Your task to perform on an android device: Go to privacy settings Image 0: 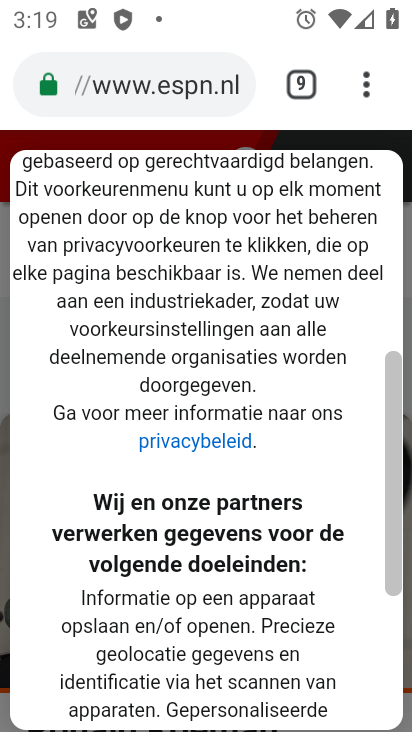
Step 0: press home button
Your task to perform on an android device: Go to privacy settings Image 1: 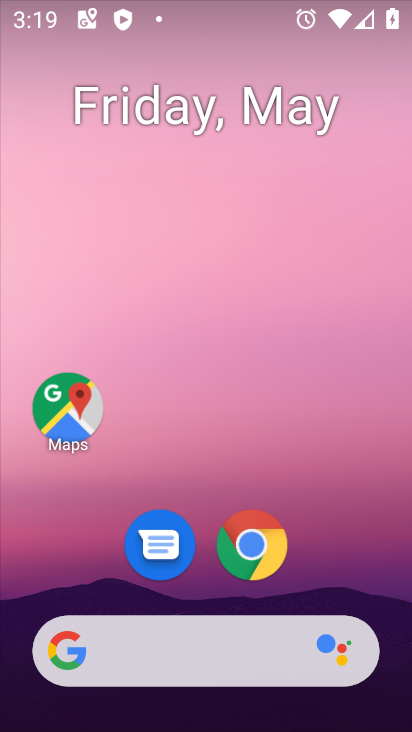
Step 1: click (345, 20)
Your task to perform on an android device: Go to privacy settings Image 2: 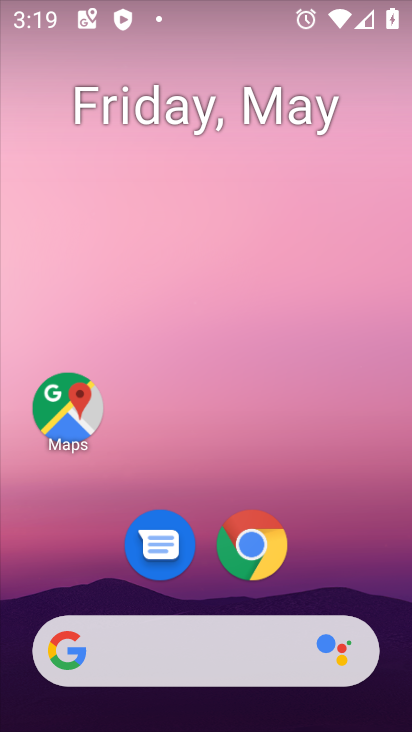
Step 2: drag from (318, 586) to (293, 248)
Your task to perform on an android device: Go to privacy settings Image 3: 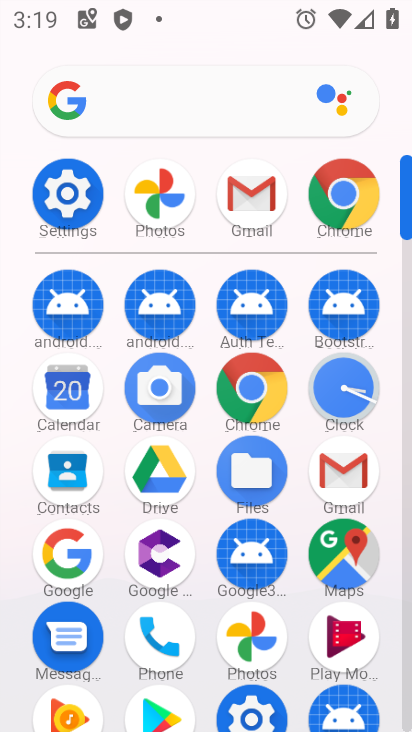
Step 3: click (73, 180)
Your task to perform on an android device: Go to privacy settings Image 4: 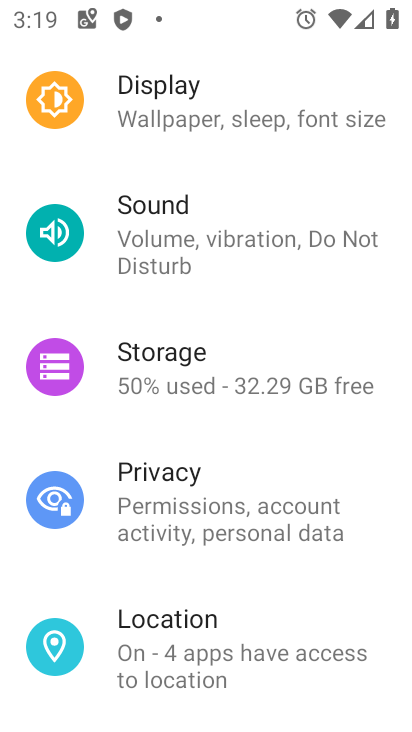
Step 4: click (192, 489)
Your task to perform on an android device: Go to privacy settings Image 5: 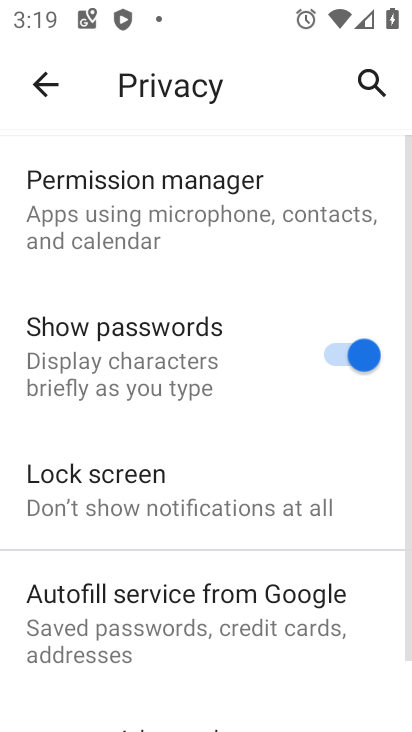
Step 5: task complete